Your task to perform on an android device: open device folders in google photos Image 0: 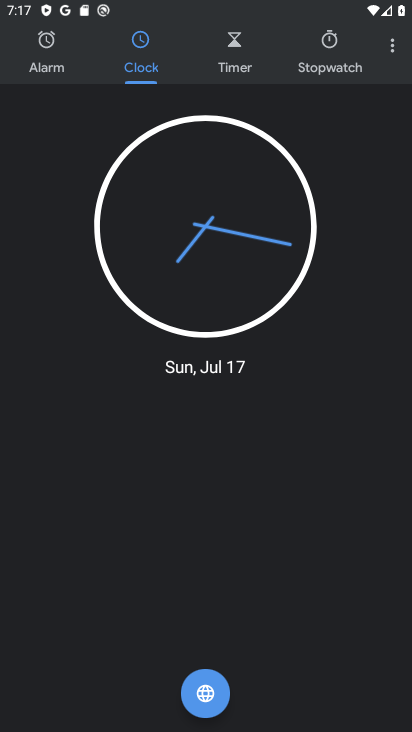
Step 0: press home button
Your task to perform on an android device: open device folders in google photos Image 1: 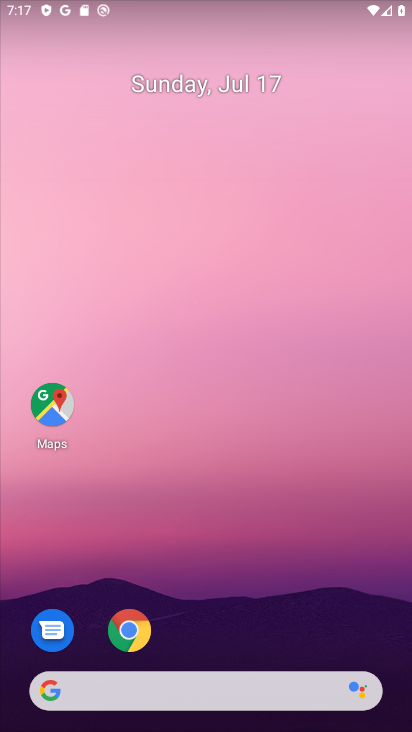
Step 1: drag from (226, 404) to (226, 118)
Your task to perform on an android device: open device folders in google photos Image 2: 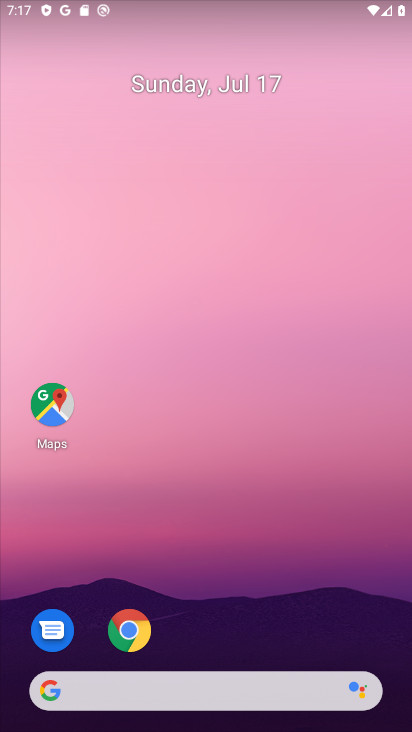
Step 2: drag from (221, 532) to (299, 69)
Your task to perform on an android device: open device folders in google photos Image 3: 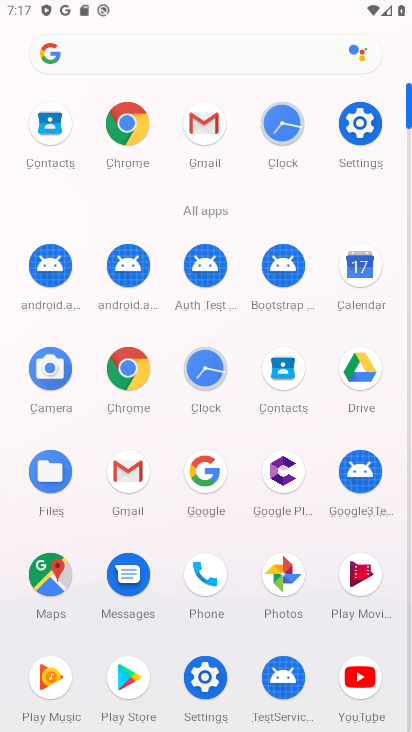
Step 3: click (285, 598)
Your task to perform on an android device: open device folders in google photos Image 4: 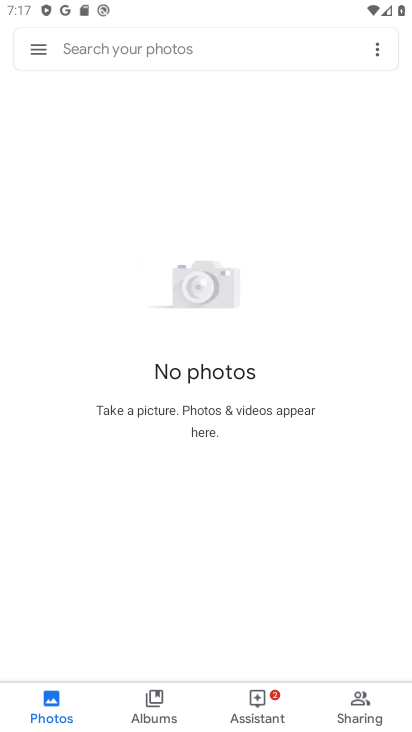
Step 4: click (39, 47)
Your task to perform on an android device: open device folders in google photos Image 5: 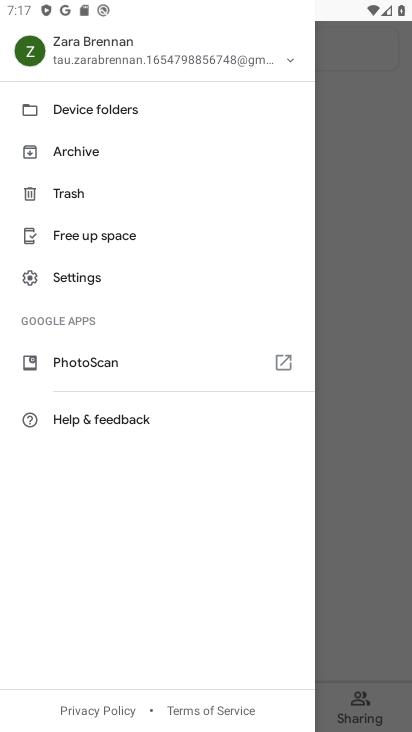
Step 5: click (62, 108)
Your task to perform on an android device: open device folders in google photos Image 6: 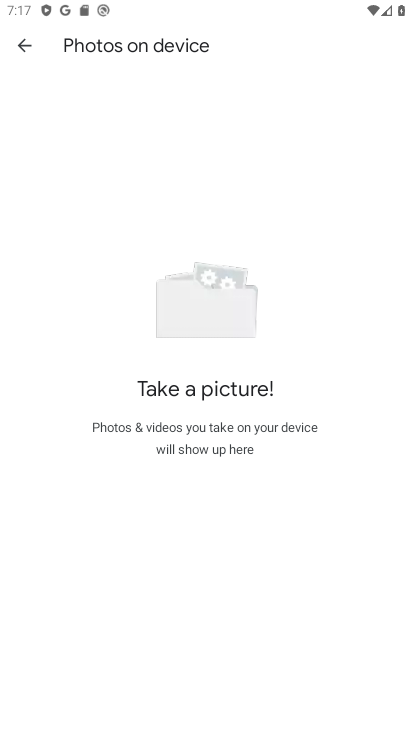
Step 6: task complete